Your task to perform on an android device: Go to Reddit.com Image 0: 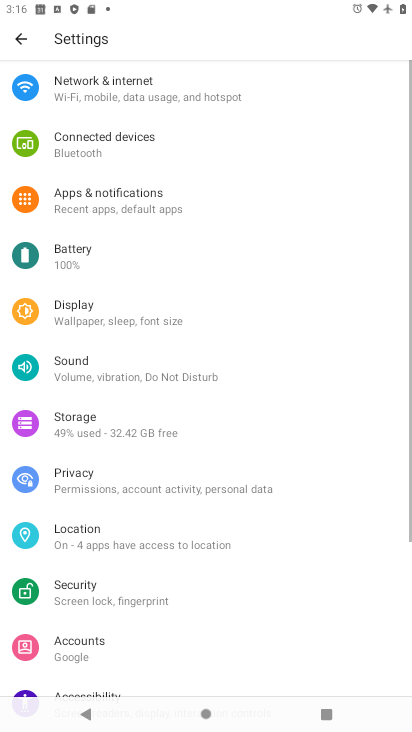
Step 0: press home button
Your task to perform on an android device: Go to Reddit.com Image 1: 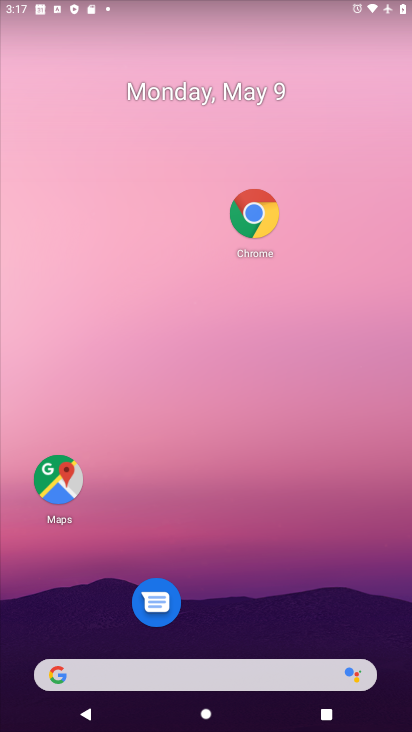
Step 1: click (251, 227)
Your task to perform on an android device: Go to Reddit.com Image 2: 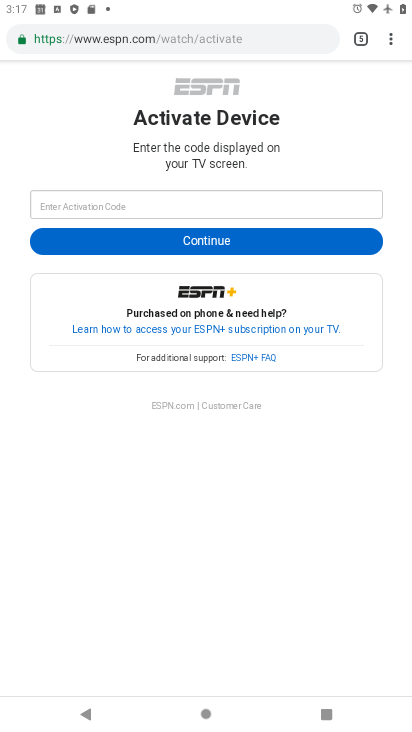
Step 2: click (257, 51)
Your task to perform on an android device: Go to Reddit.com Image 3: 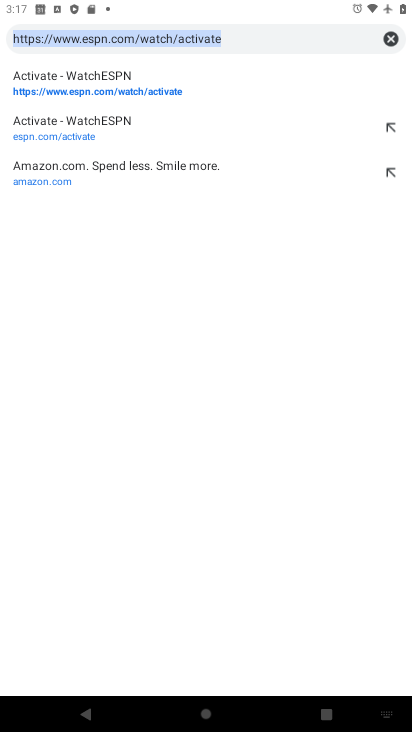
Step 3: type "reddit"
Your task to perform on an android device: Go to Reddit.com Image 4: 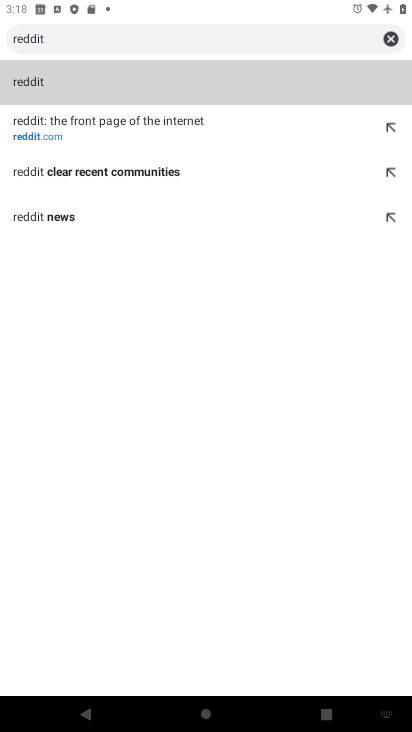
Step 4: click (150, 133)
Your task to perform on an android device: Go to Reddit.com Image 5: 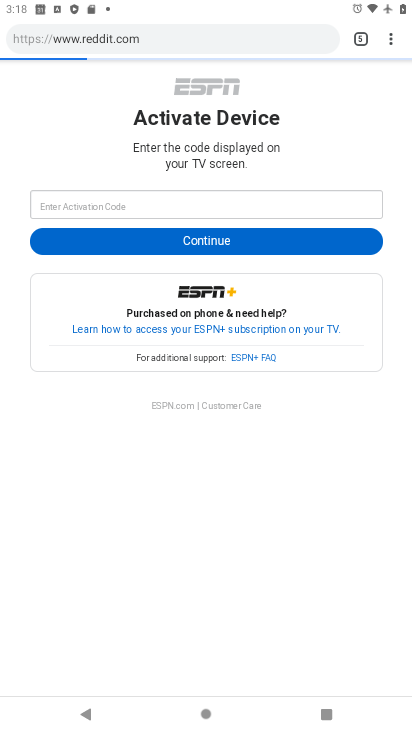
Step 5: task complete